Your task to perform on an android device: turn on sleep mode Image 0: 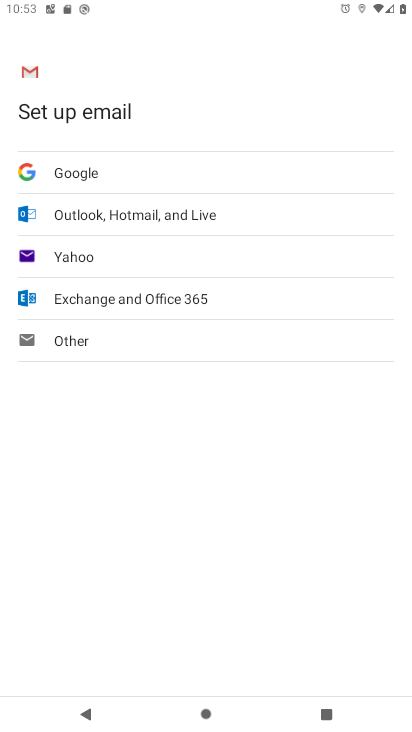
Step 0: press home button
Your task to perform on an android device: turn on sleep mode Image 1: 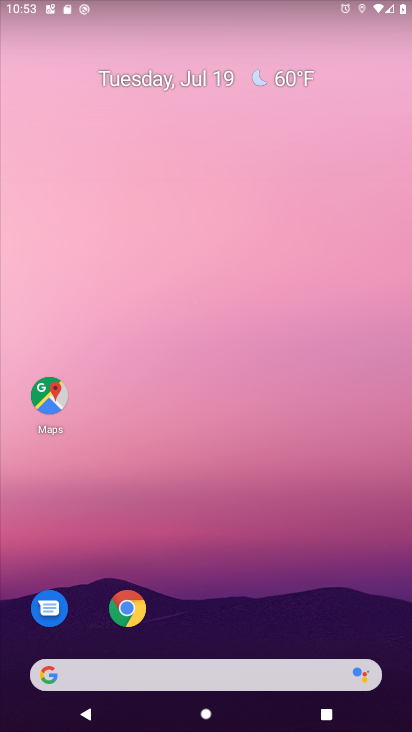
Step 1: drag from (209, 617) to (239, 21)
Your task to perform on an android device: turn on sleep mode Image 2: 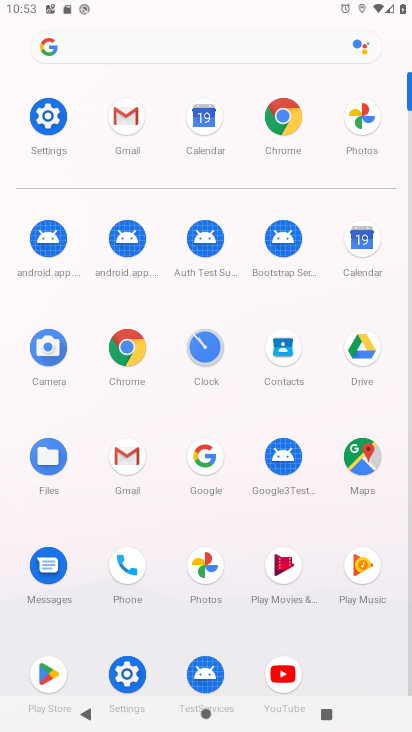
Step 2: click (112, 681)
Your task to perform on an android device: turn on sleep mode Image 3: 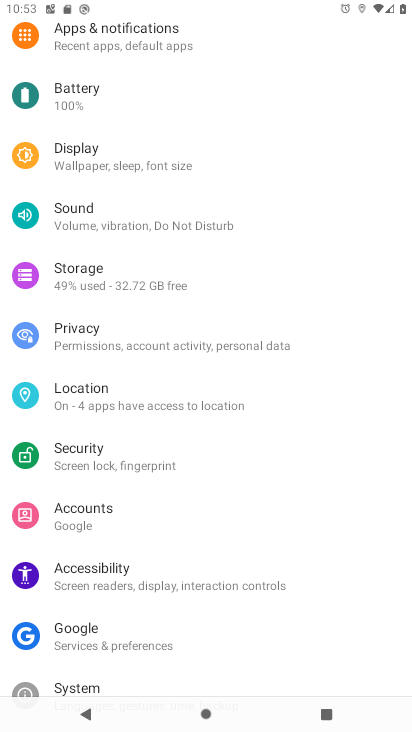
Step 3: task complete